Your task to perform on an android device: Open Google Maps and go to "Timeline" Image 0: 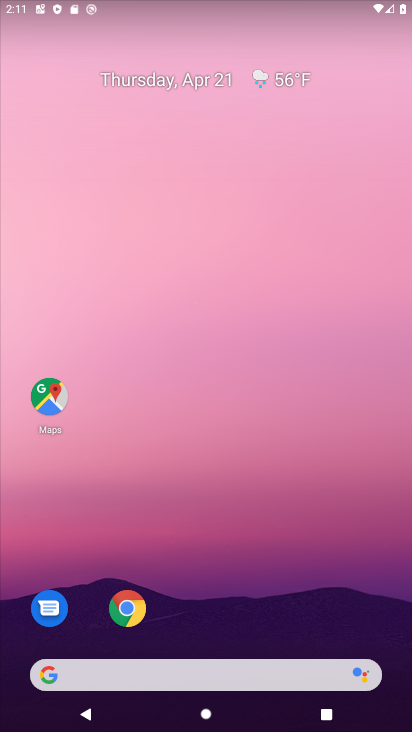
Step 0: click (51, 389)
Your task to perform on an android device: Open Google Maps and go to "Timeline" Image 1: 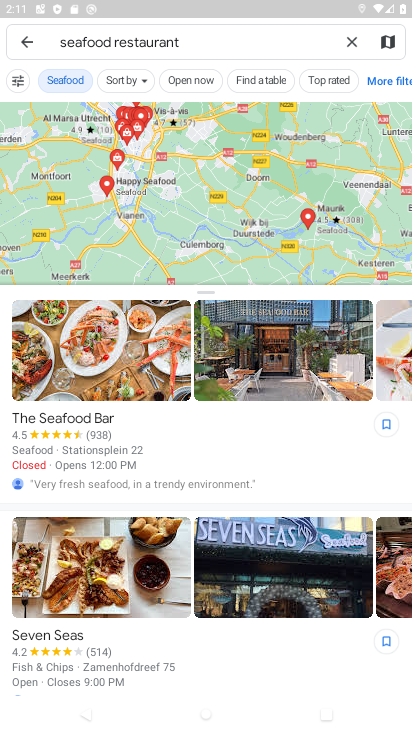
Step 1: click (30, 41)
Your task to perform on an android device: Open Google Maps and go to "Timeline" Image 2: 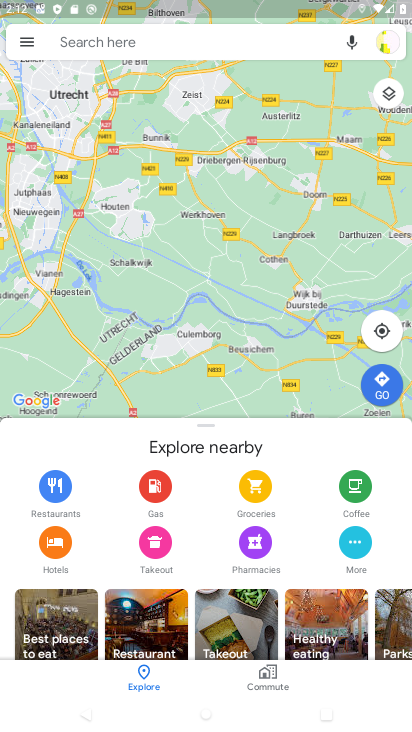
Step 2: click (30, 38)
Your task to perform on an android device: Open Google Maps and go to "Timeline" Image 3: 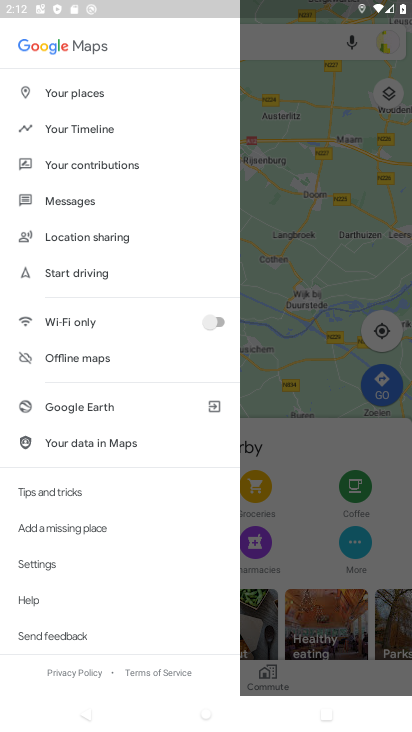
Step 3: click (98, 128)
Your task to perform on an android device: Open Google Maps and go to "Timeline" Image 4: 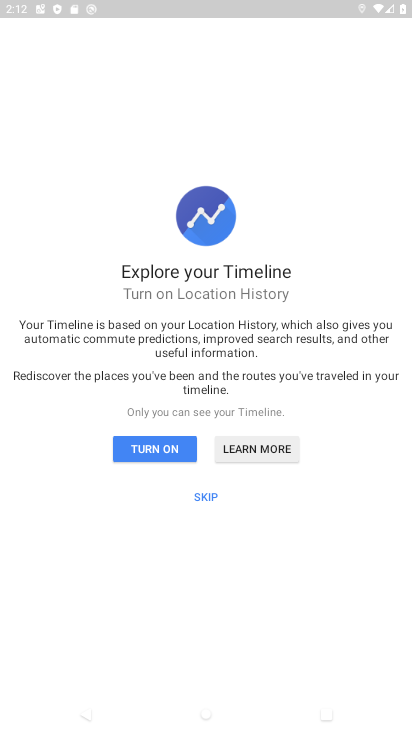
Step 4: click (174, 456)
Your task to perform on an android device: Open Google Maps and go to "Timeline" Image 5: 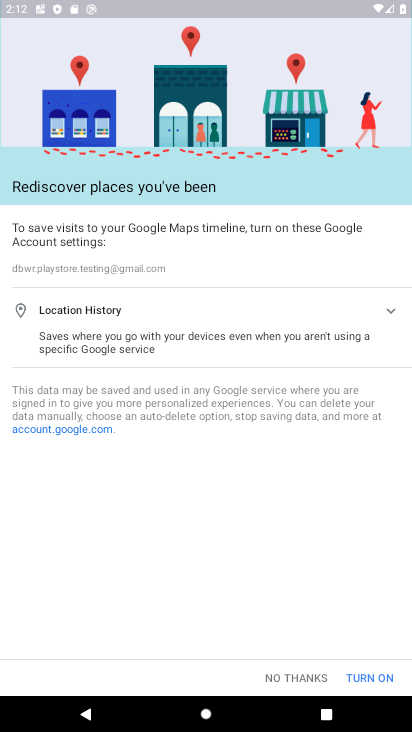
Step 5: click (371, 677)
Your task to perform on an android device: Open Google Maps and go to "Timeline" Image 6: 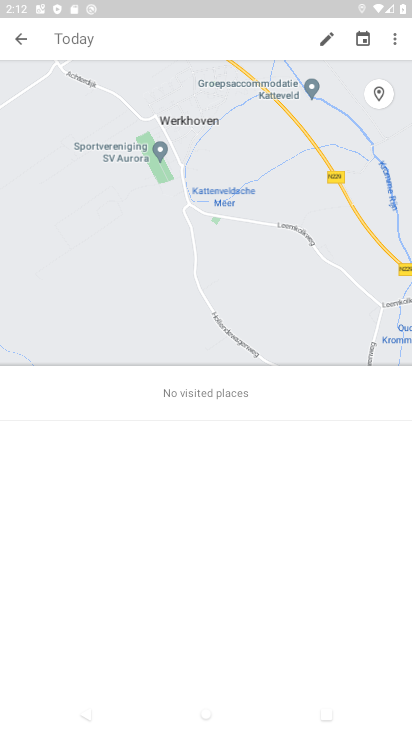
Step 6: task complete